Your task to perform on an android device: refresh tabs in the chrome app Image 0: 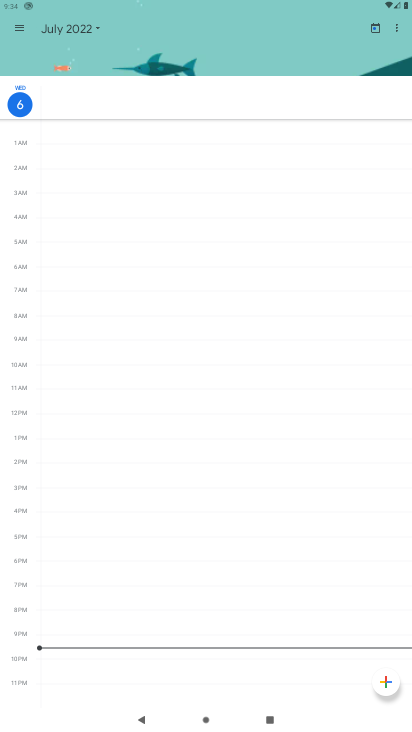
Step 0: press home button
Your task to perform on an android device: refresh tabs in the chrome app Image 1: 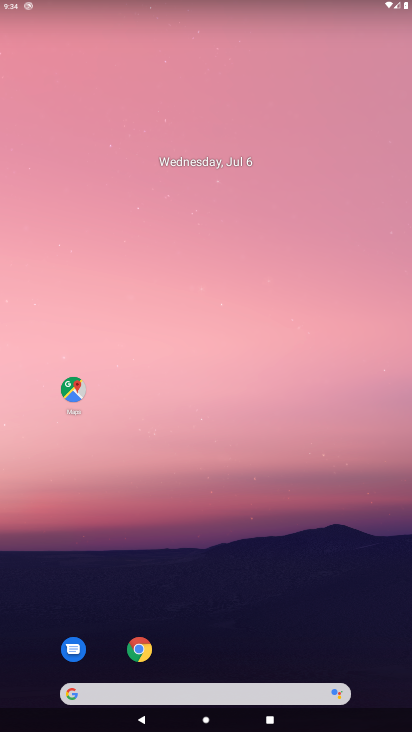
Step 1: click (132, 650)
Your task to perform on an android device: refresh tabs in the chrome app Image 2: 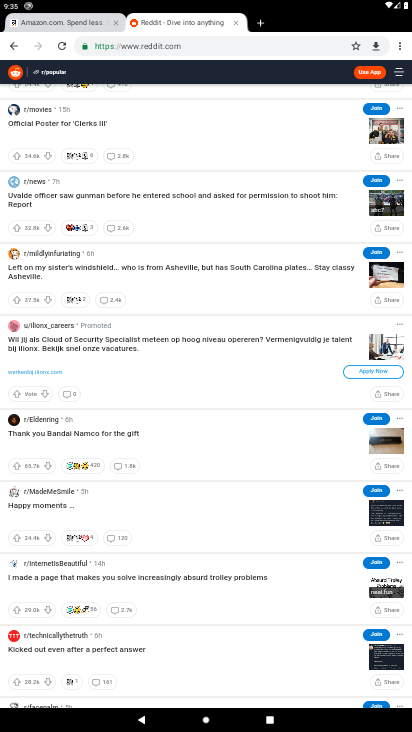
Step 2: click (400, 43)
Your task to perform on an android device: refresh tabs in the chrome app Image 3: 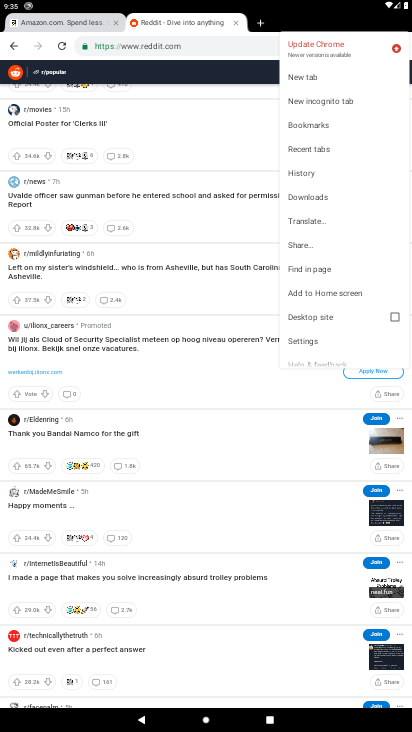
Step 3: click (63, 49)
Your task to perform on an android device: refresh tabs in the chrome app Image 4: 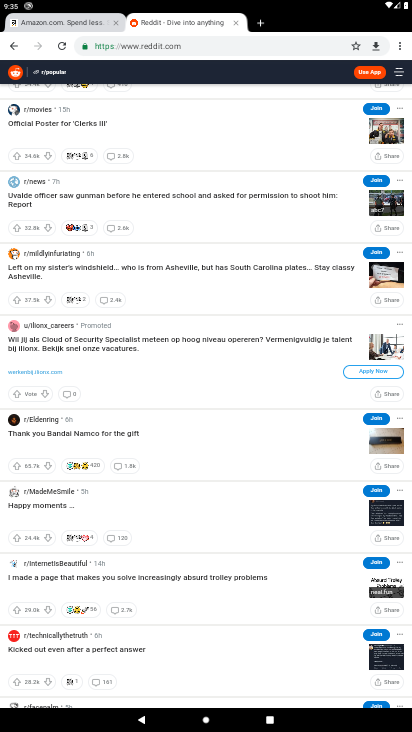
Step 4: click (66, 44)
Your task to perform on an android device: refresh tabs in the chrome app Image 5: 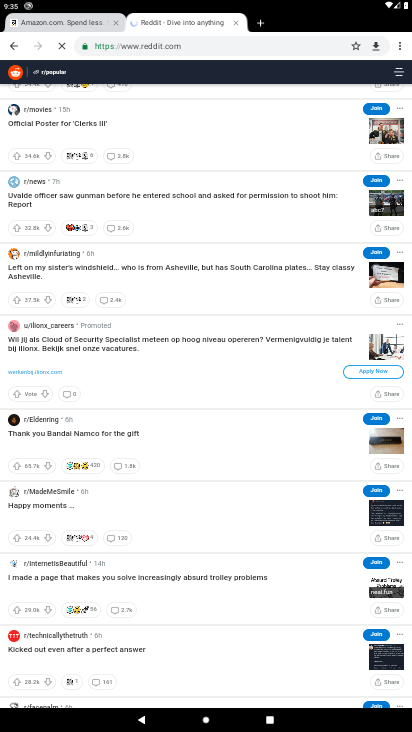
Step 5: task complete